Your task to perform on an android device: change the clock style Image 0: 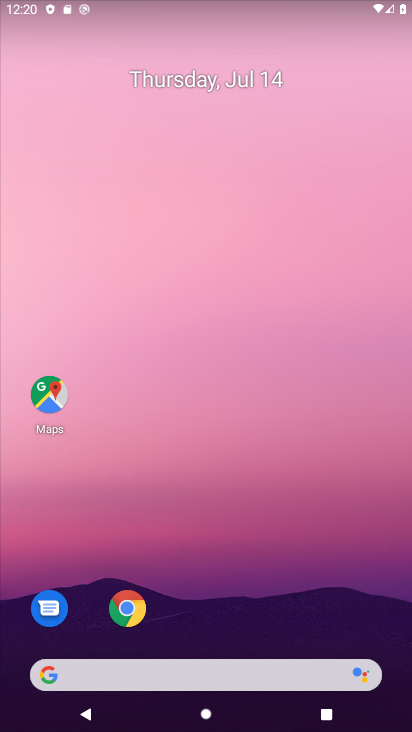
Step 0: drag from (280, 605) to (254, 82)
Your task to perform on an android device: change the clock style Image 1: 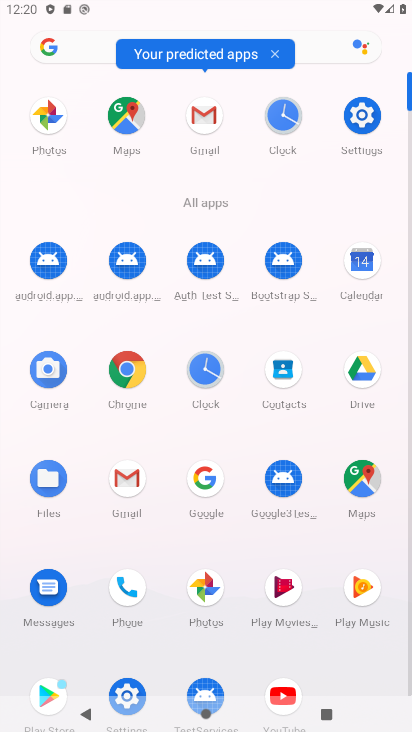
Step 1: click (274, 117)
Your task to perform on an android device: change the clock style Image 2: 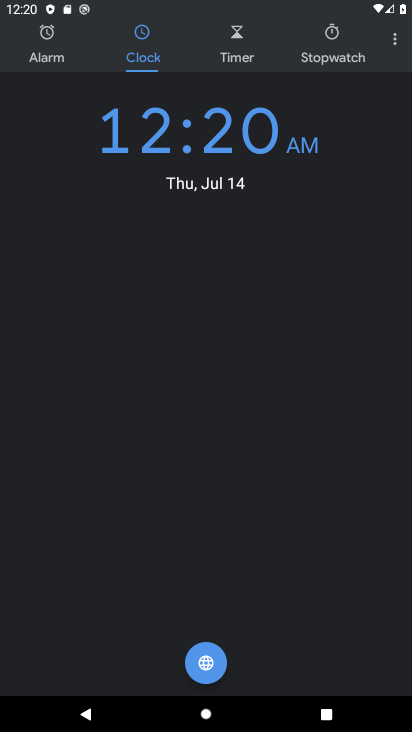
Step 2: click (400, 43)
Your task to perform on an android device: change the clock style Image 3: 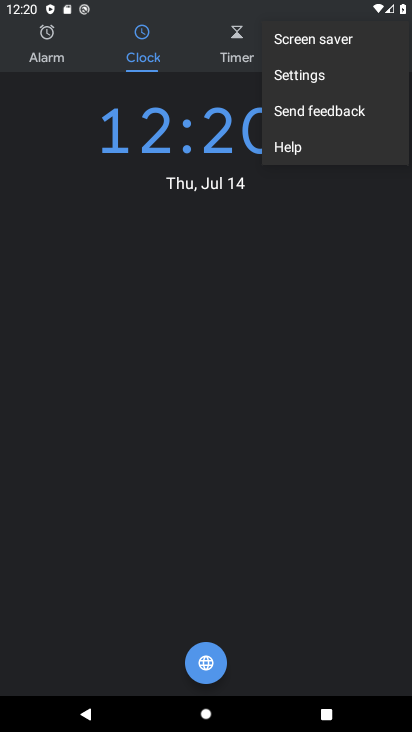
Step 3: click (311, 85)
Your task to perform on an android device: change the clock style Image 4: 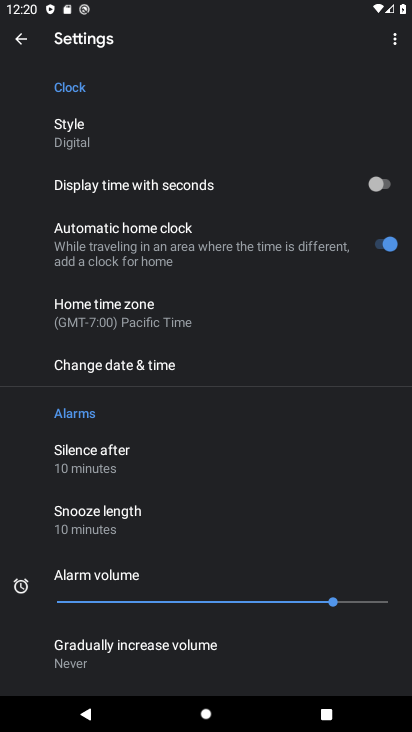
Step 4: click (122, 373)
Your task to perform on an android device: change the clock style Image 5: 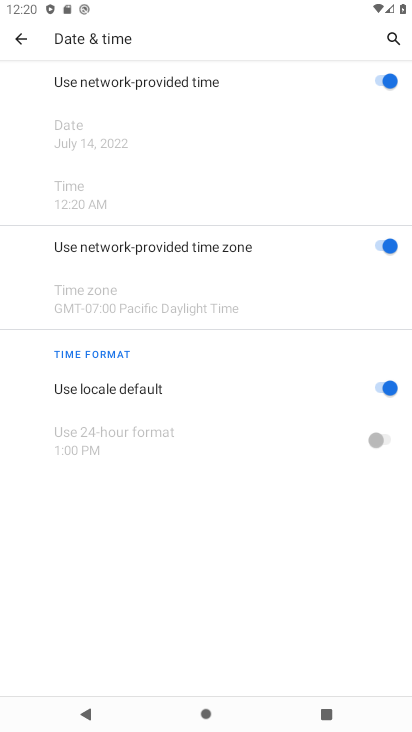
Step 5: click (16, 34)
Your task to perform on an android device: change the clock style Image 6: 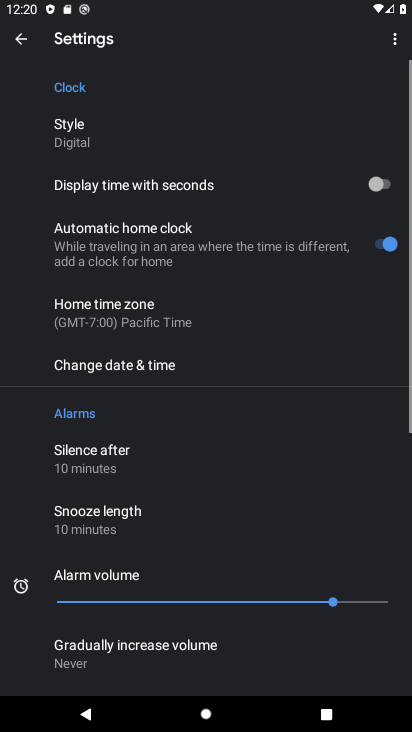
Step 6: click (57, 124)
Your task to perform on an android device: change the clock style Image 7: 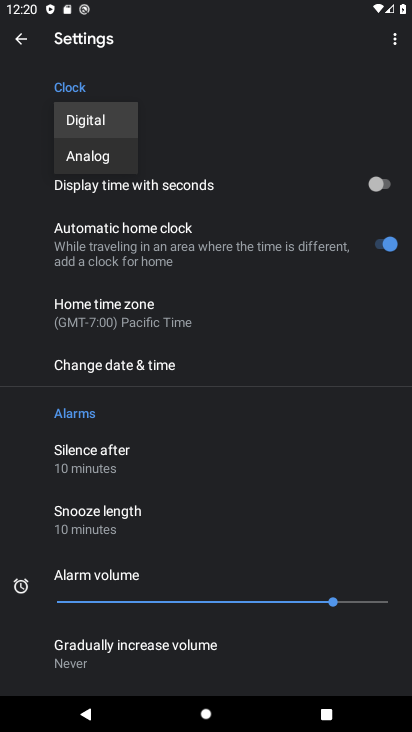
Step 7: click (93, 158)
Your task to perform on an android device: change the clock style Image 8: 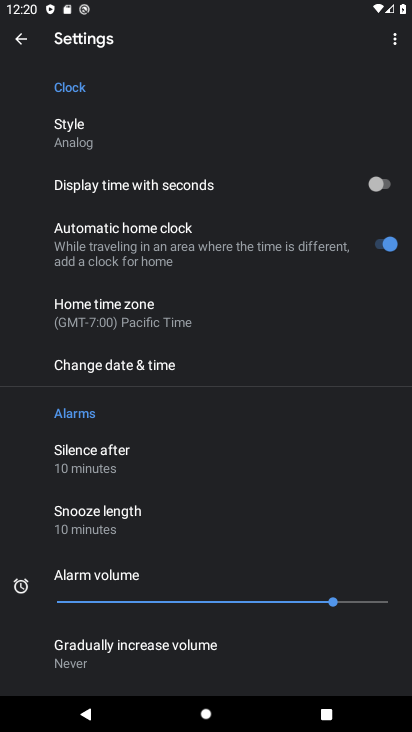
Step 8: task complete